Your task to perform on an android device: turn on showing notifications on the lock screen Image 0: 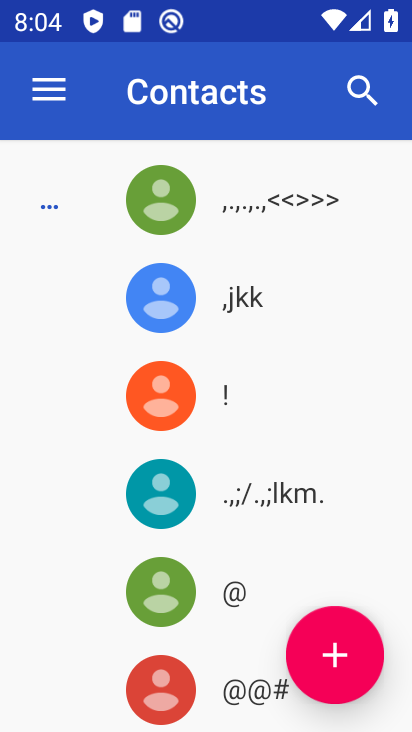
Step 0: press home button
Your task to perform on an android device: turn on showing notifications on the lock screen Image 1: 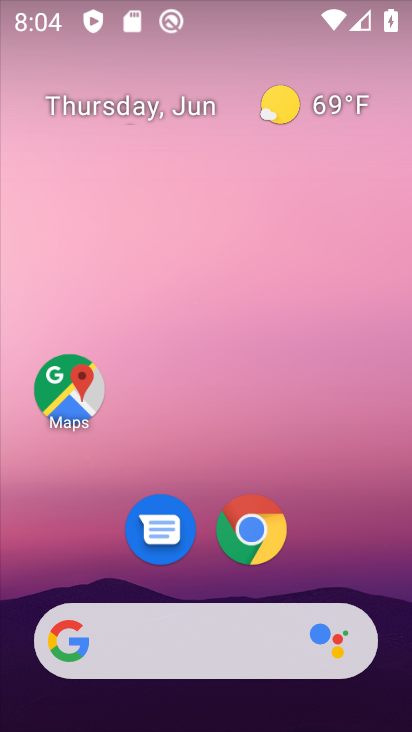
Step 1: drag from (167, 536) to (93, 74)
Your task to perform on an android device: turn on showing notifications on the lock screen Image 2: 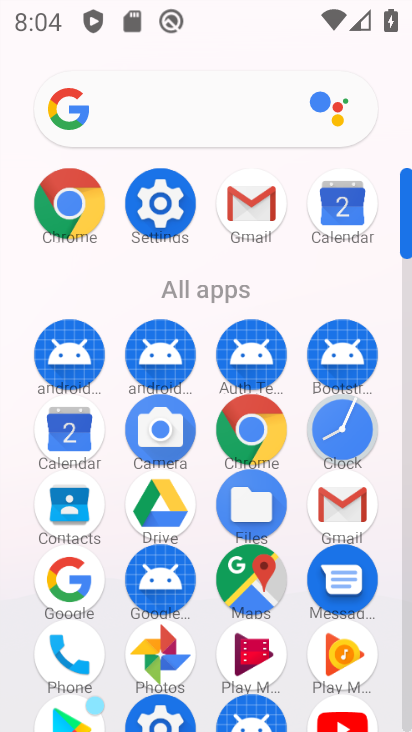
Step 2: click (154, 197)
Your task to perform on an android device: turn on showing notifications on the lock screen Image 3: 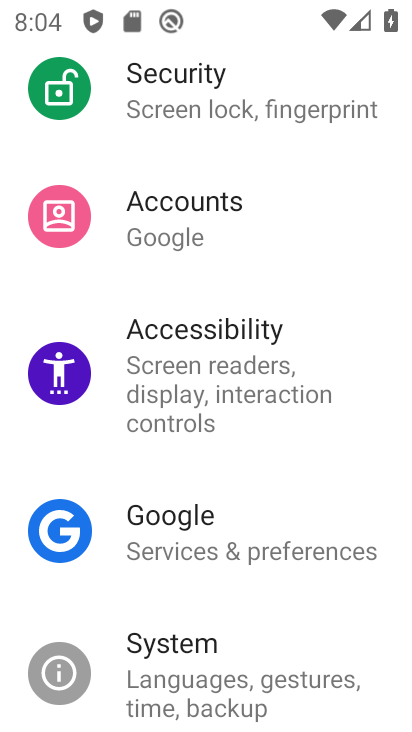
Step 3: drag from (204, 214) to (150, 677)
Your task to perform on an android device: turn on showing notifications on the lock screen Image 4: 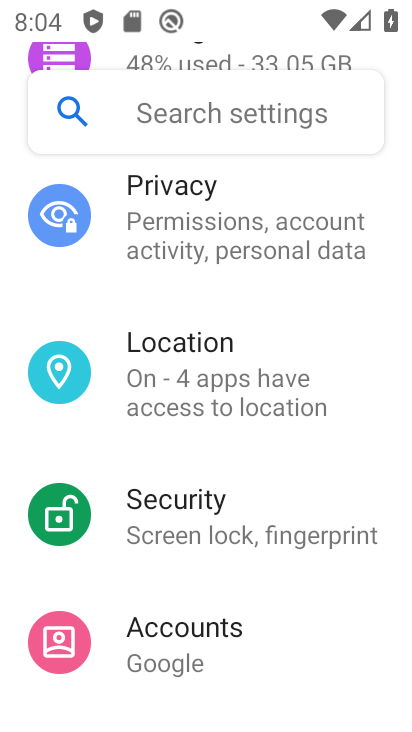
Step 4: drag from (187, 260) to (171, 632)
Your task to perform on an android device: turn on showing notifications on the lock screen Image 5: 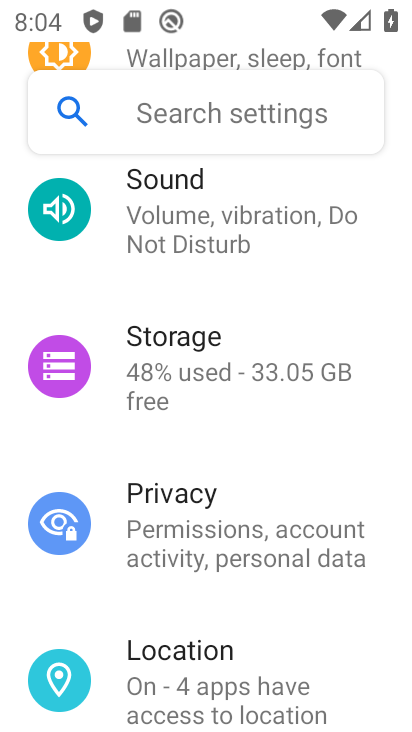
Step 5: click (154, 730)
Your task to perform on an android device: turn on showing notifications on the lock screen Image 6: 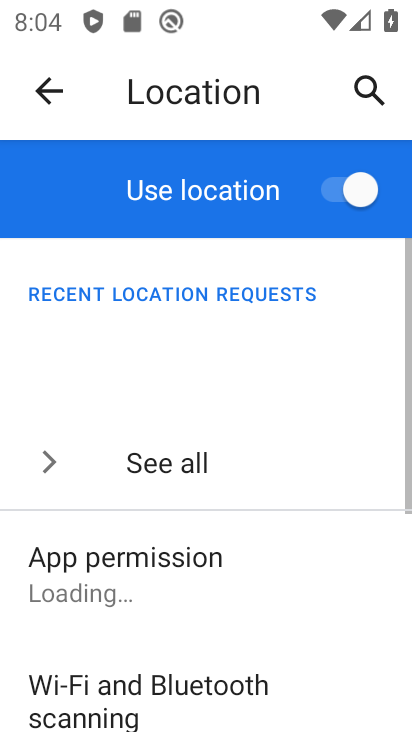
Step 6: drag from (191, 296) to (183, 676)
Your task to perform on an android device: turn on showing notifications on the lock screen Image 7: 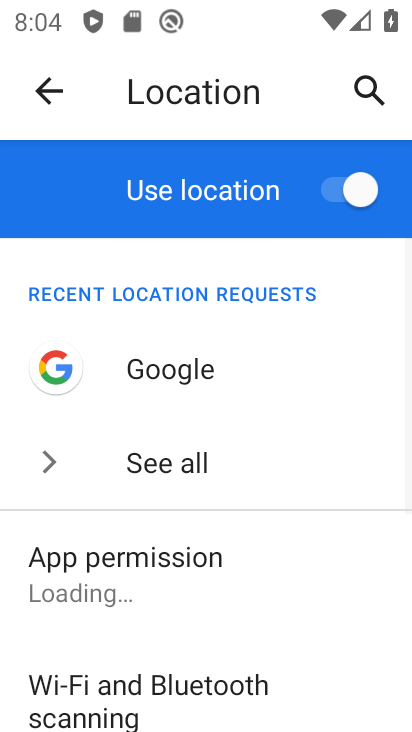
Step 7: click (57, 110)
Your task to perform on an android device: turn on showing notifications on the lock screen Image 8: 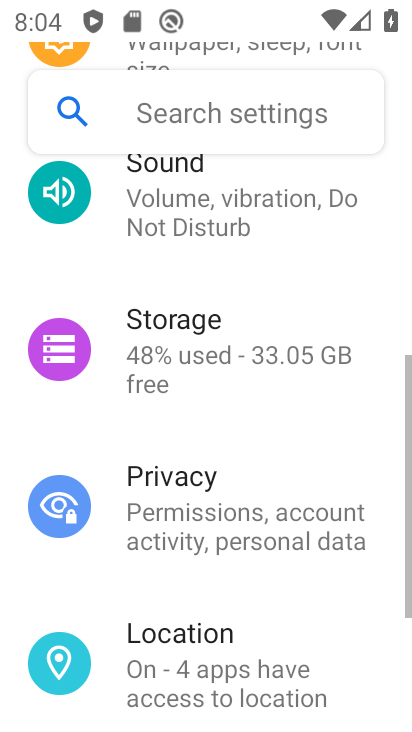
Step 8: drag from (239, 314) to (185, 716)
Your task to perform on an android device: turn on showing notifications on the lock screen Image 9: 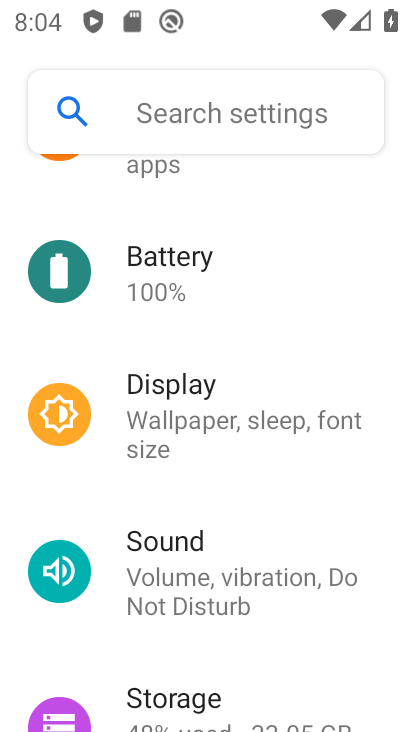
Step 9: drag from (215, 189) to (186, 508)
Your task to perform on an android device: turn on showing notifications on the lock screen Image 10: 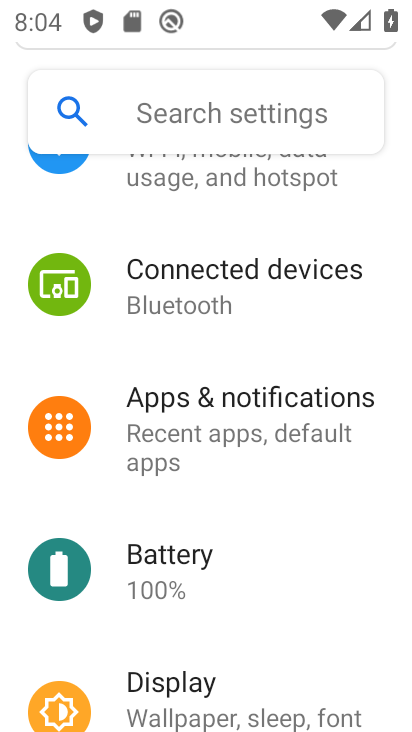
Step 10: click (166, 414)
Your task to perform on an android device: turn on showing notifications on the lock screen Image 11: 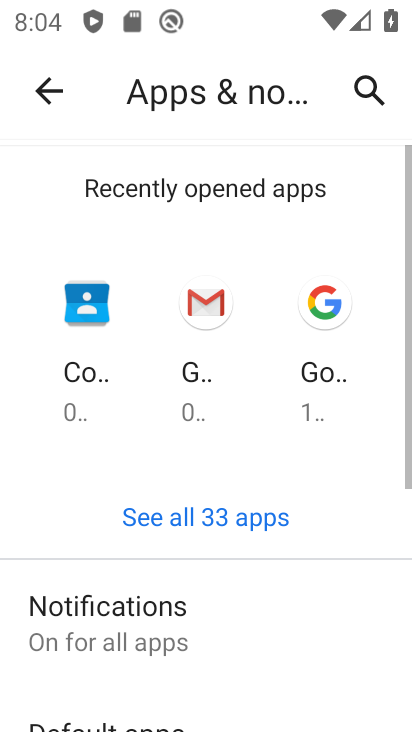
Step 11: click (137, 621)
Your task to perform on an android device: turn on showing notifications on the lock screen Image 12: 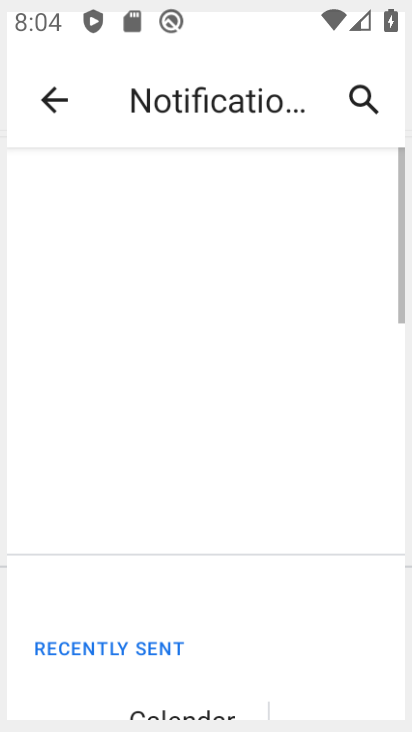
Step 12: drag from (137, 621) to (37, 60)
Your task to perform on an android device: turn on showing notifications on the lock screen Image 13: 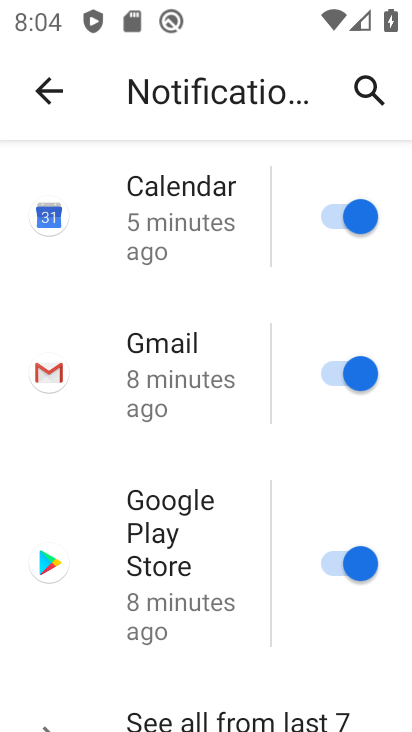
Step 13: drag from (113, 630) to (81, 220)
Your task to perform on an android device: turn on showing notifications on the lock screen Image 14: 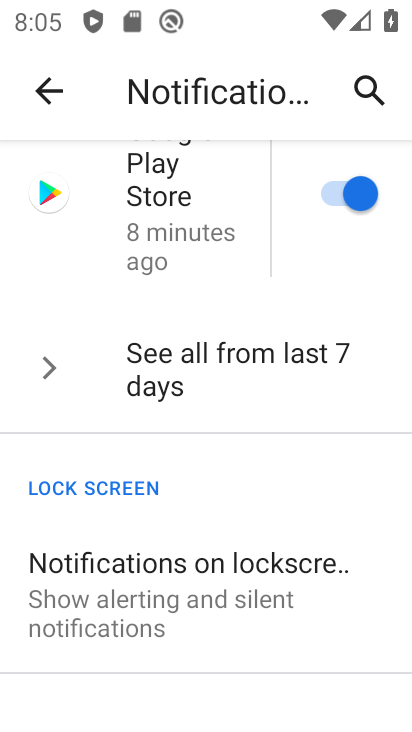
Step 14: click (174, 578)
Your task to perform on an android device: turn on showing notifications on the lock screen Image 15: 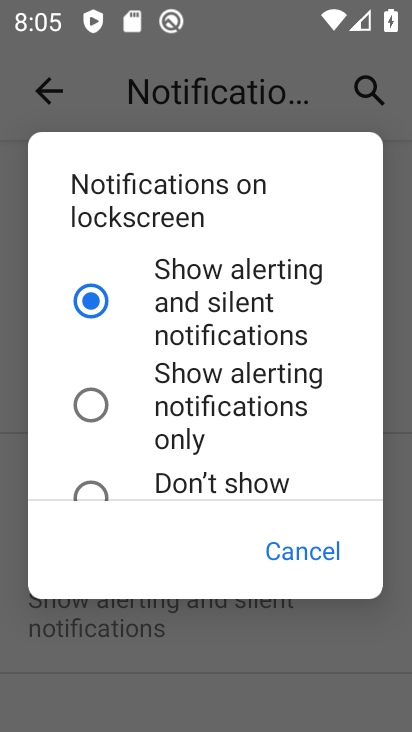
Step 15: task complete